Your task to perform on an android device: turn off picture-in-picture Image 0: 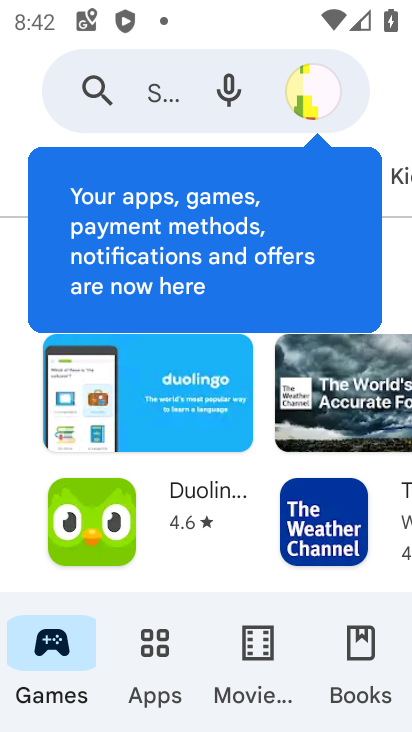
Step 0: press home button
Your task to perform on an android device: turn off picture-in-picture Image 1: 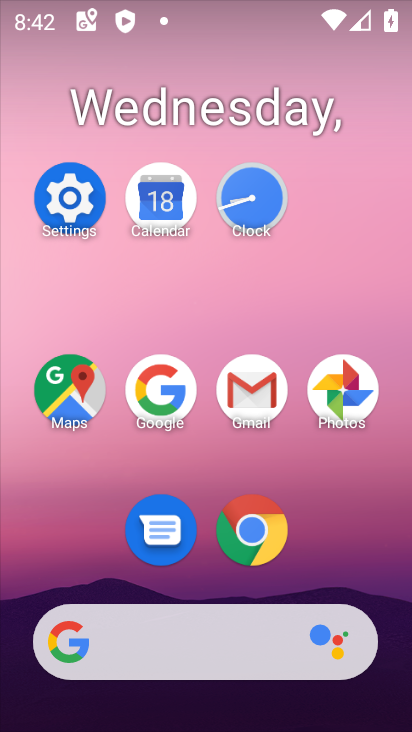
Step 1: click (262, 525)
Your task to perform on an android device: turn off picture-in-picture Image 2: 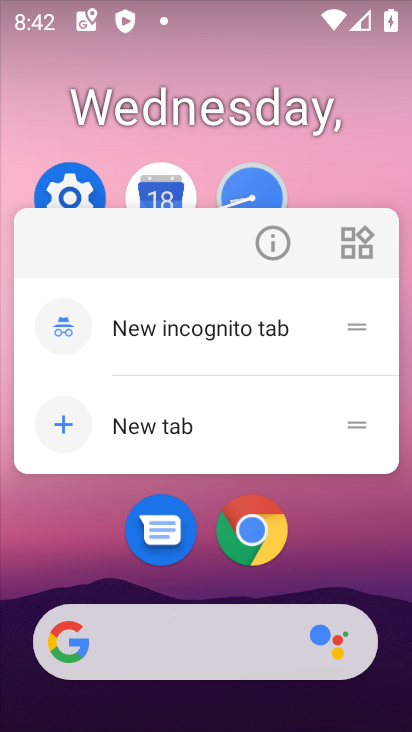
Step 2: click (275, 244)
Your task to perform on an android device: turn off picture-in-picture Image 3: 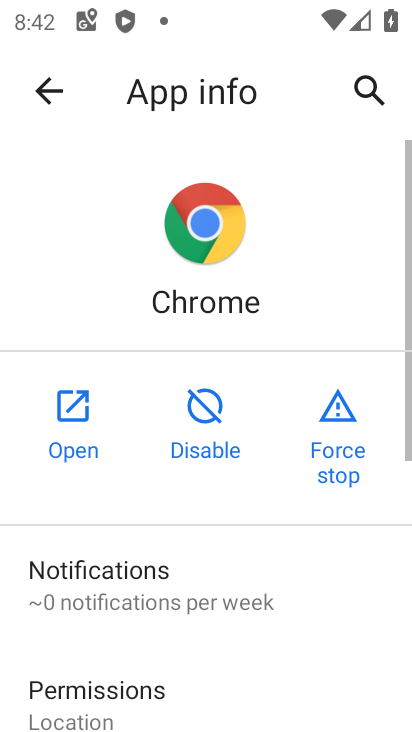
Step 3: drag from (181, 592) to (401, 184)
Your task to perform on an android device: turn off picture-in-picture Image 4: 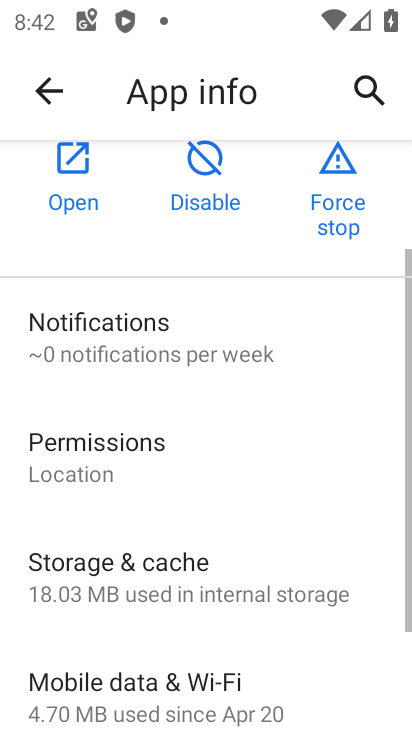
Step 4: drag from (203, 607) to (356, 167)
Your task to perform on an android device: turn off picture-in-picture Image 5: 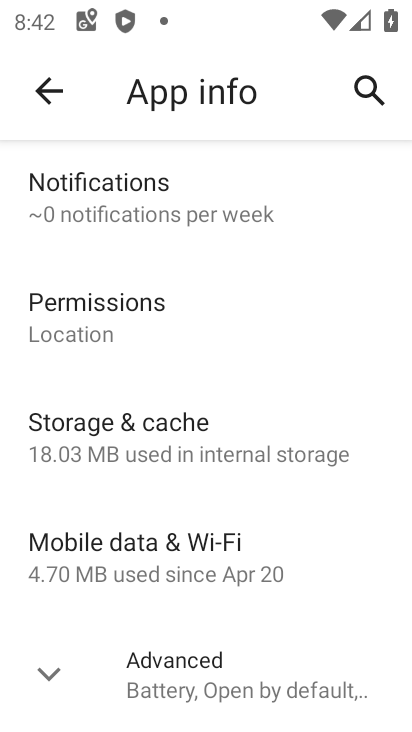
Step 5: click (205, 691)
Your task to perform on an android device: turn off picture-in-picture Image 6: 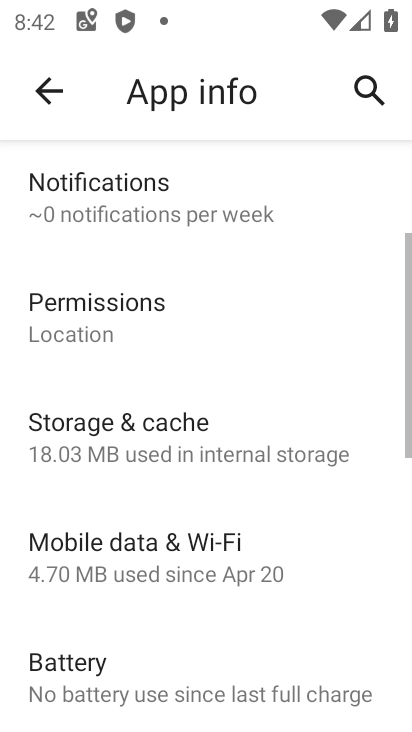
Step 6: drag from (201, 683) to (321, 240)
Your task to perform on an android device: turn off picture-in-picture Image 7: 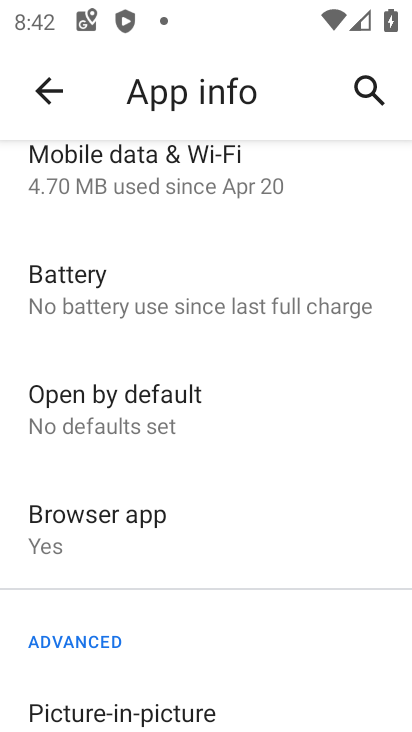
Step 7: drag from (152, 705) to (263, 345)
Your task to perform on an android device: turn off picture-in-picture Image 8: 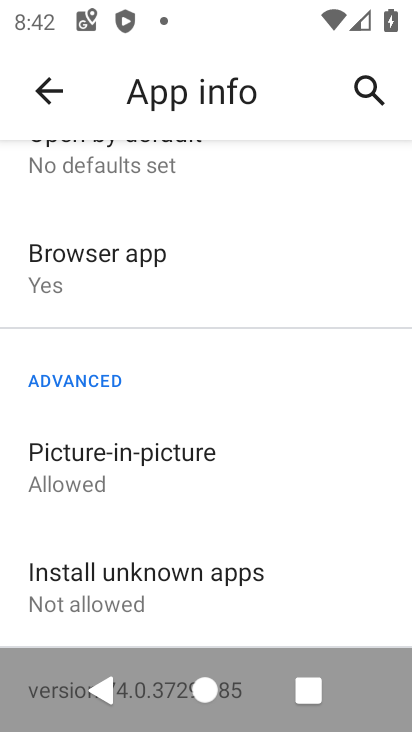
Step 8: click (244, 439)
Your task to perform on an android device: turn off picture-in-picture Image 9: 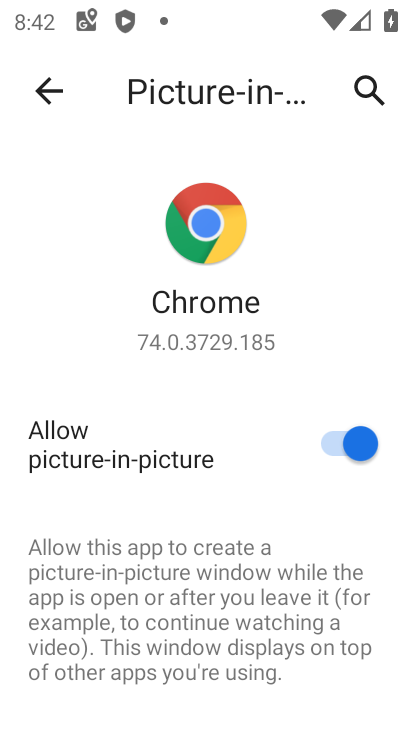
Step 9: click (334, 438)
Your task to perform on an android device: turn off picture-in-picture Image 10: 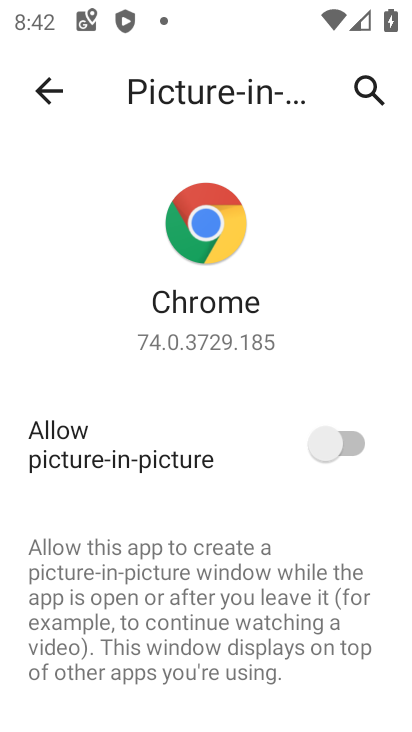
Step 10: task complete